Your task to perform on an android device: toggle improve location accuracy Image 0: 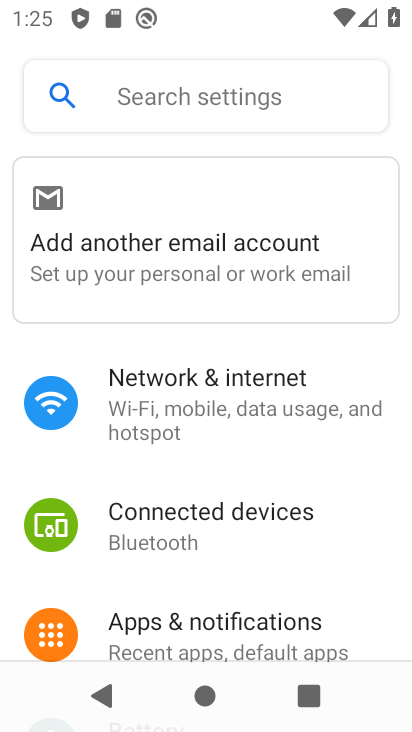
Step 0: drag from (291, 573) to (278, 216)
Your task to perform on an android device: toggle improve location accuracy Image 1: 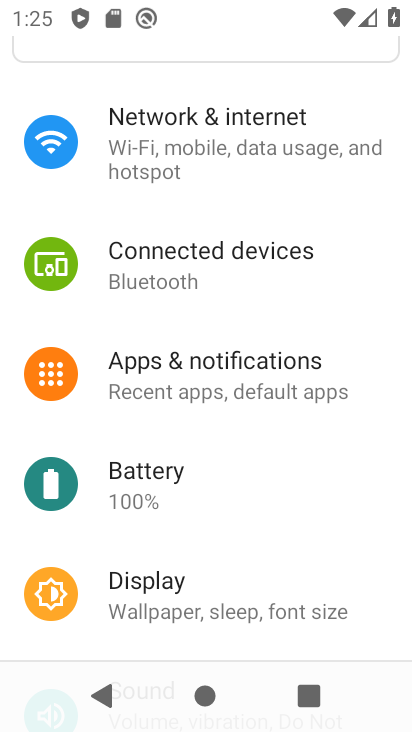
Step 1: drag from (265, 561) to (257, 254)
Your task to perform on an android device: toggle improve location accuracy Image 2: 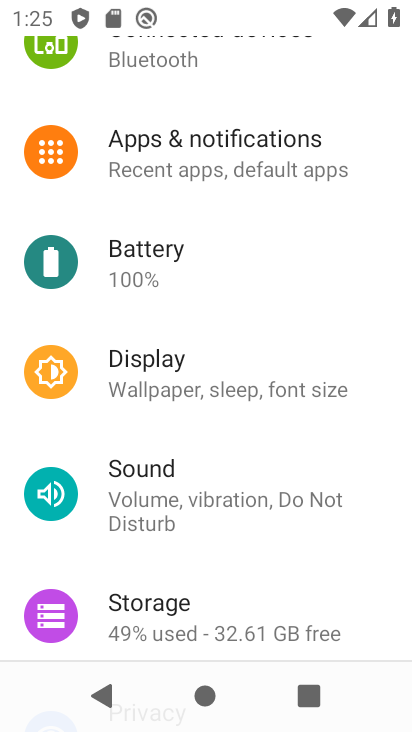
Step 2: drag from (205, 582) to (240, 216)
Your task to perform on an android device: toggle improve location accuracy Image 3: 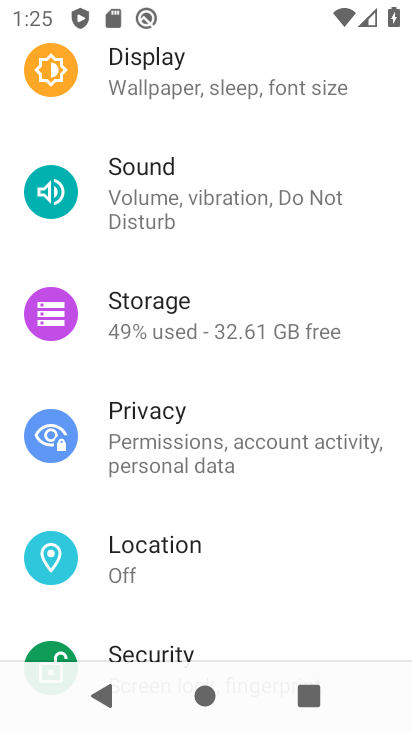
Step 3: click (263, 544)
Your task to perform on an android device: toggle improve location accuracy Image 4: 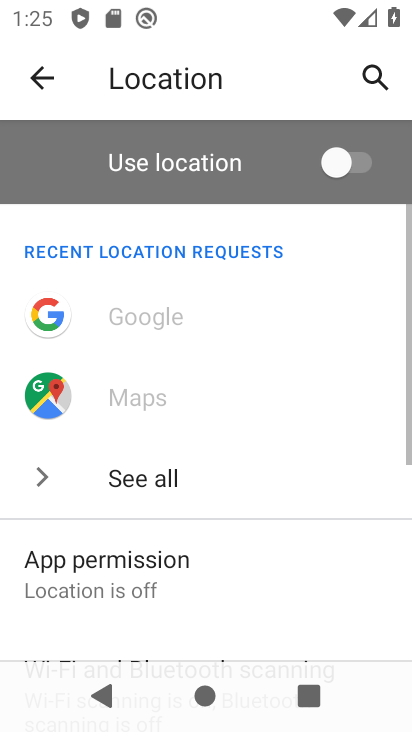
Step 4: drag from (263, 544) to (267, 200)
Your task to perform on an android device: toggle improve location accuracy Image 5: 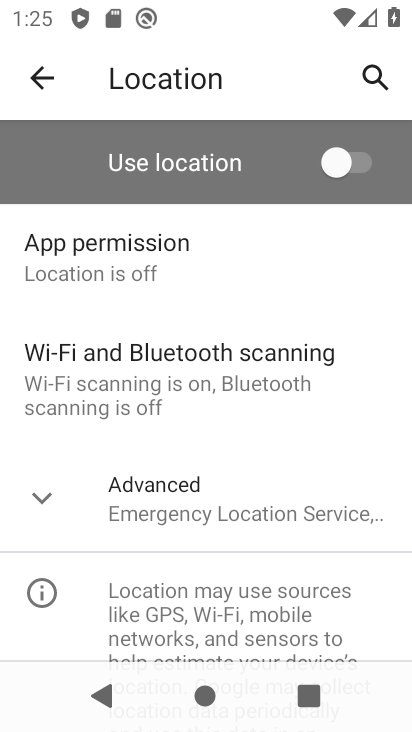
Step 5: click (237, 533)
Your task to perform on an android device: toggle improve location accuracy Image 6: 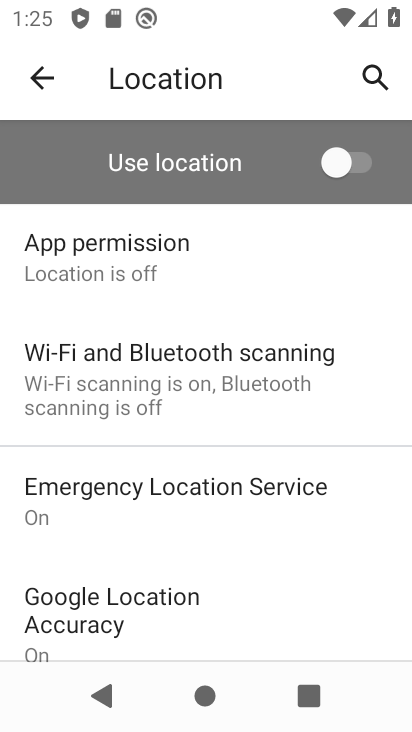
Step 6: click (256, 615)
Your task to perform on an android device: toggle improve location accuracy Image 7: 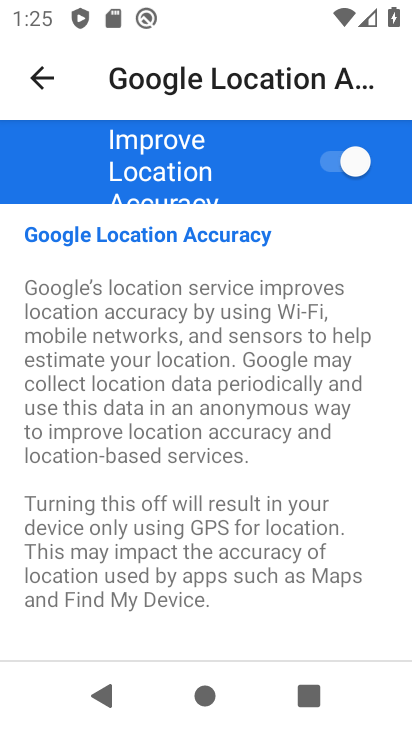
Step 7: click (343, 164)
Your task to perform on an android device: toggle improve location accuracy Image 8: 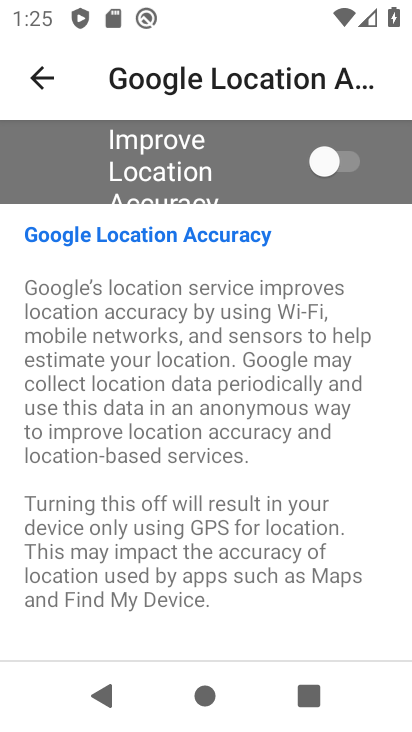
Step 8: task complete